Your task to perform on an android device: choose inbox layout in the gmail app Image 0: 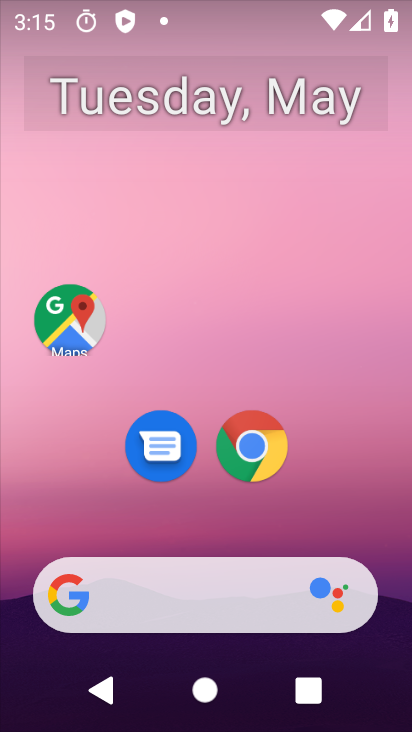
Step 0: click (232, 77)
Your task to perform on an android device: choose inbox layout in the gmail app Image 1: 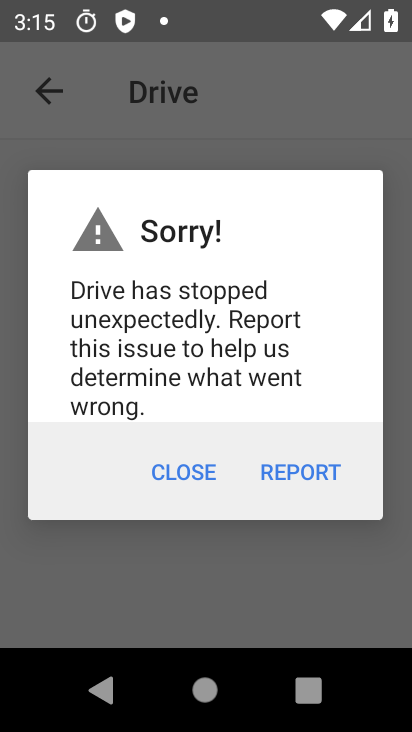
Step 1: press home button
Your task to perform on an android device: choose inbox layout in the gmail app Image 2: 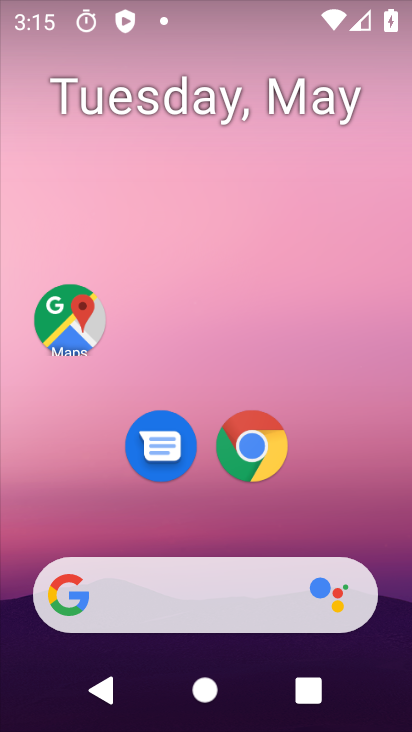
Step 2: drag from (241, 721) to (240, 195)
Your task to perform on an android device: choose inbox layout in the gmail app Image 3: 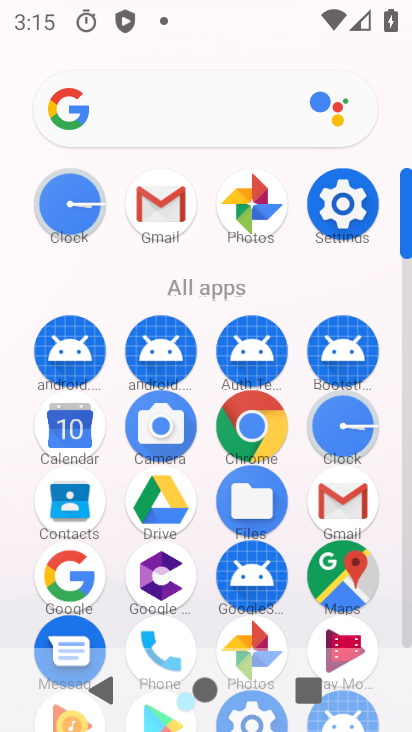
Step 3: click (343, 507)
Your task to perform on an android device: choose inbox layout in the gmail app Image 4: 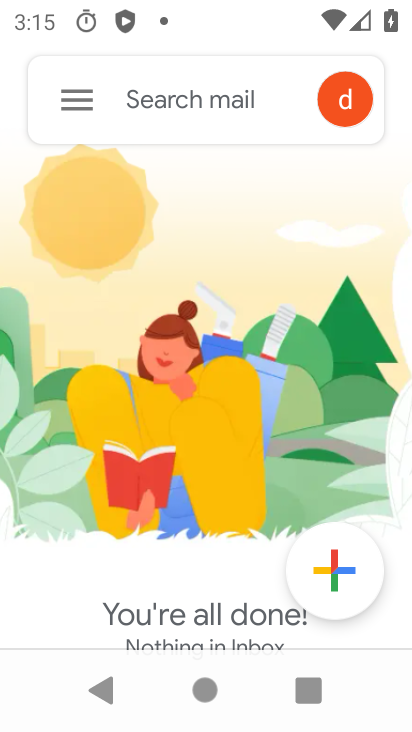
Step 4: click (76, 96)
Your task to perform on an android device: choose inbox layout in the gmail app Image 5: 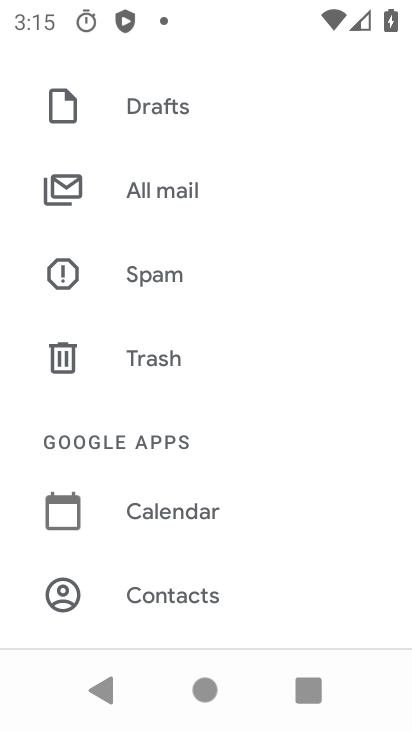
Step 5: drag from (164, 562) to (183, 282)
Your task to perform on an android device: choose inbox layout in the gmail app Image 6: 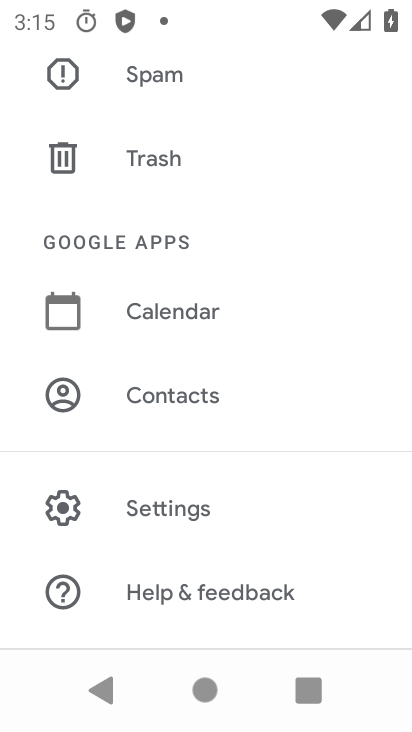
Step 6: click (177, 503)
Your task to perform on an android device: choose inbox layout in the gmail app Image 7: 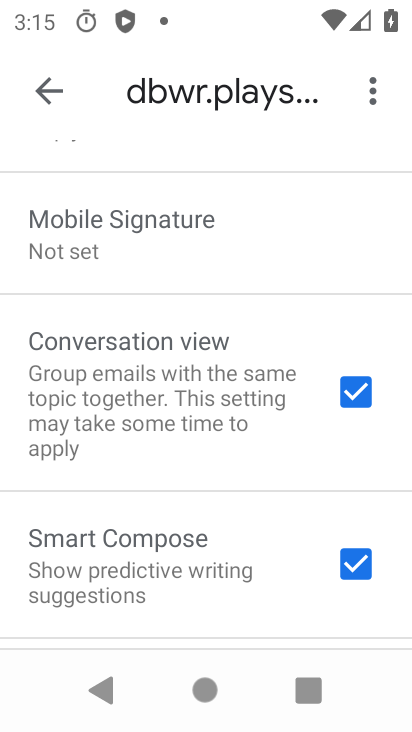
Step 7: drag from (196, 599) to (223, 445)
Your task to perform on an android device: choose inbox layout in the gmail app Image 8: 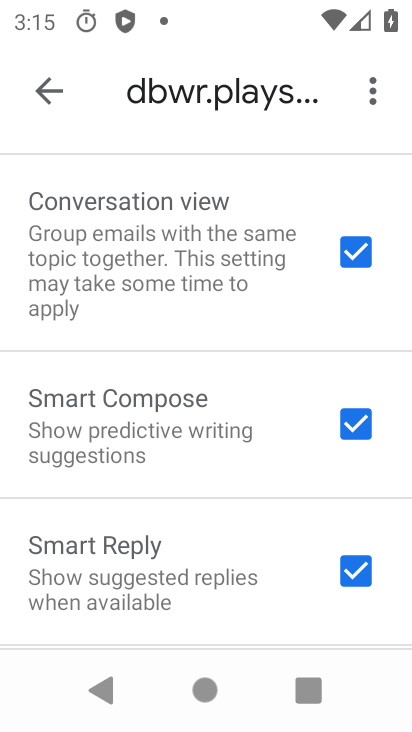
Step 8: drag from (194, 615) to (228, 315)
Your task to perform on an android device: choose inbox layout in the gmail app Image 9: 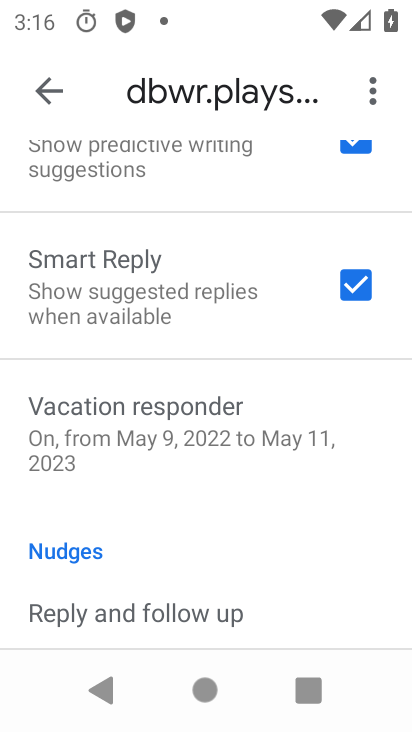
Step 9: drag from (227, 147) to (215, 481)
Your task to perform on an android device: choose inbox layout in the gmail app Image 10: 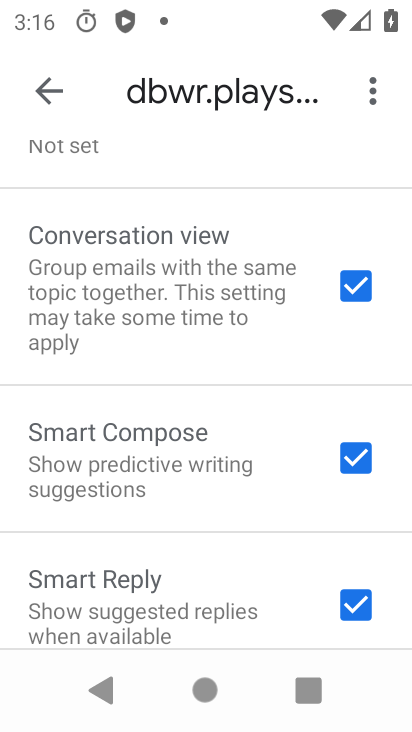
Step 10: drag from (228, 197) to (225, 528)
Your task to perform on an android device: choose inbox layout in the gmail app Image 11: 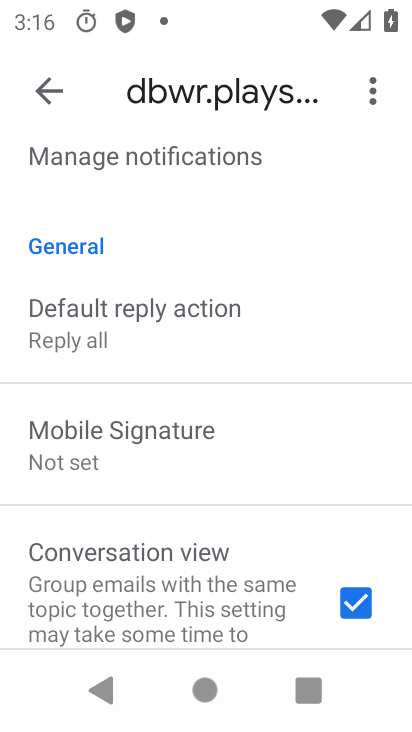
Step 11: drag from (260, 226) to (242, 529)
Your task to perform on an android device: choose inbox layout in the gmail app Image 12: 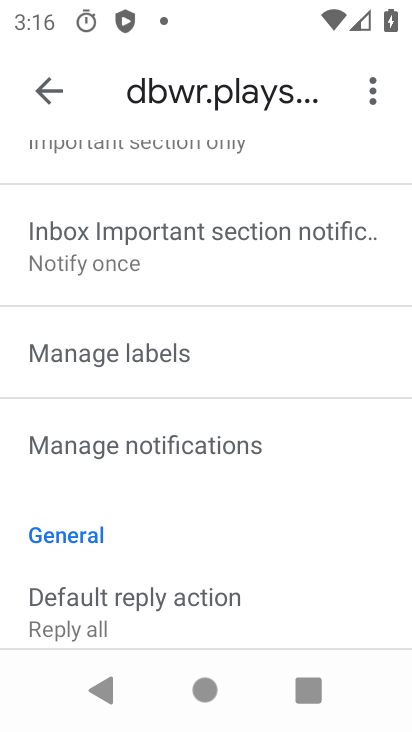
Step 12: drag from (277, 172) to (255, 563)
Your task to perform on an android device: choose inbox layout in the gmail app Image 13: 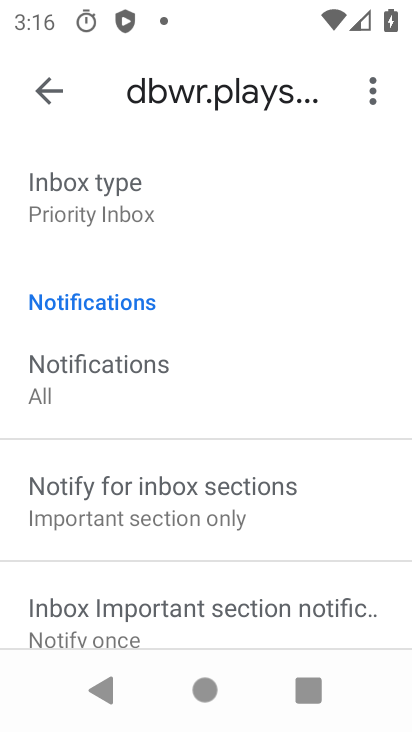
Step 13: drag from (278, 190) to (278, 440)
Your task to perform on an android device: choose inbox layout in the gmail app Image 14: 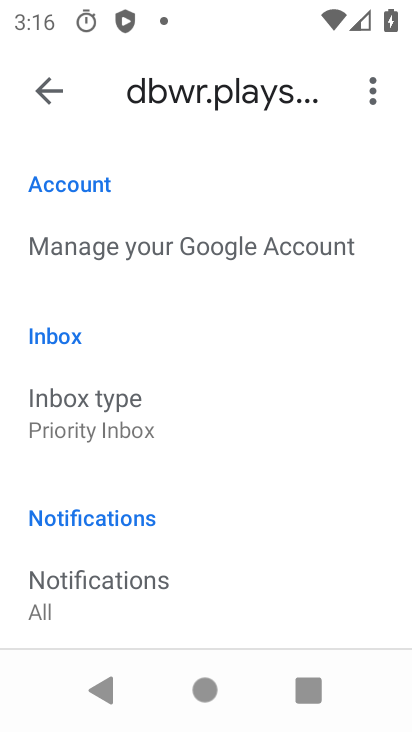
Step 14: click (102, 404)
Your task to perform on an android device: choose inbox layout in the gmail app Image 15: 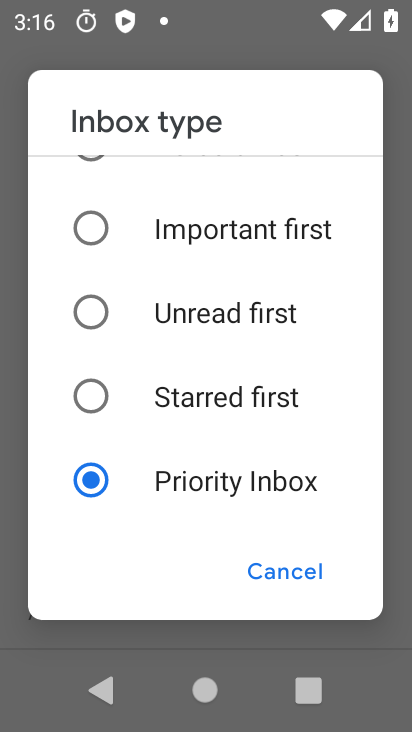
Step 15: drag from (176, 182) to (172, 367)
Your task to perform on an android device: choose inbox layout in the gmail app Image 16: 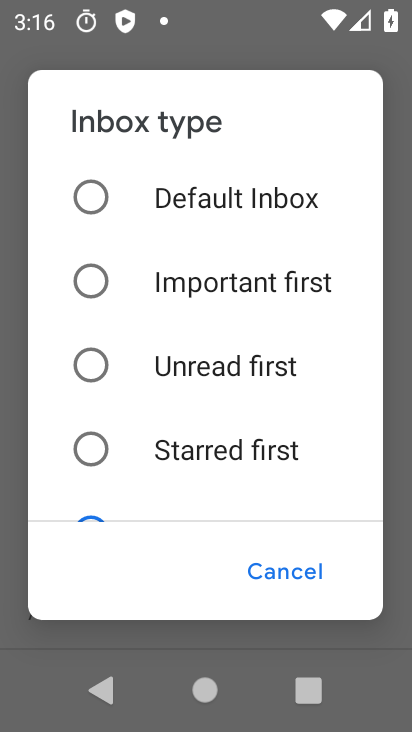
Step 16: click (96, 193)
Your task to perform on an android device: choose inbox layout in the gmail app Image 17: 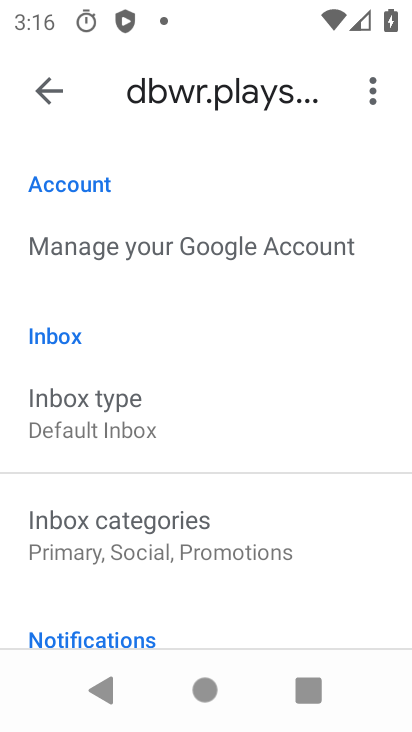
Step 17: task complete